Your task to perform on an android device: empty trash in the gmail app Image 0: 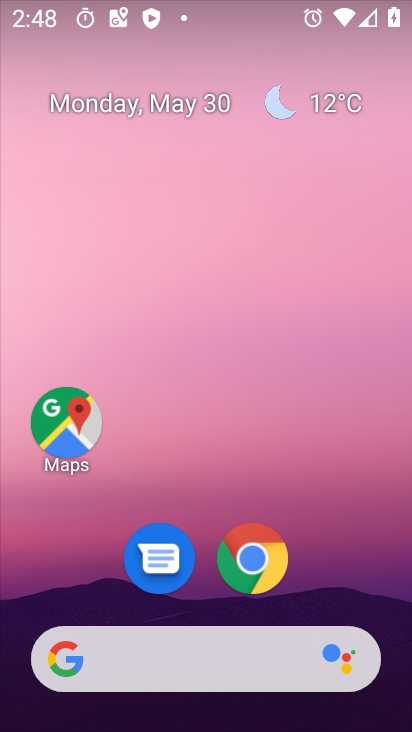
Step 0: drag from (160, 553) to (220, 102)
Your task to perform on an android device: empty trash in the gmail app Image 1: 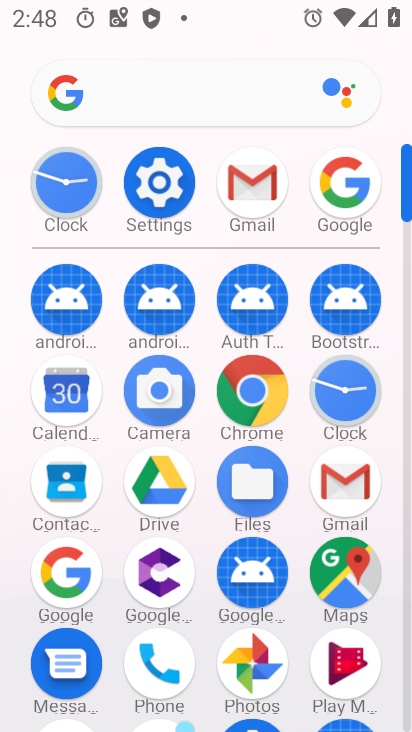
Step 1: click (261, 174)
Your task to perform on an android device: empty trash in the gmail app Image 2: 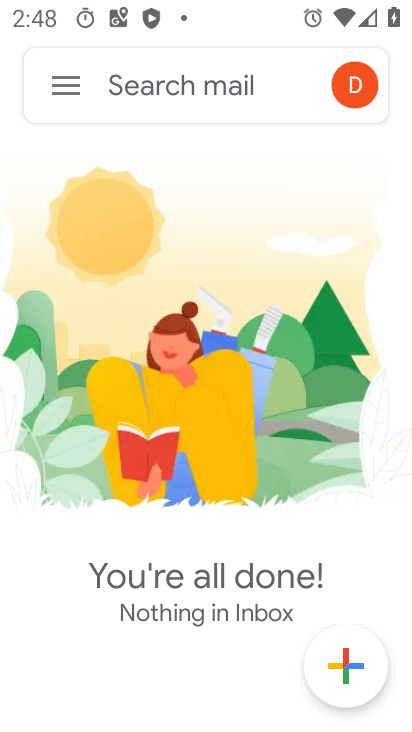
Step 2: click (60, 82)
Your task to perform on an android device: empty trash in the gmail app Image 3: 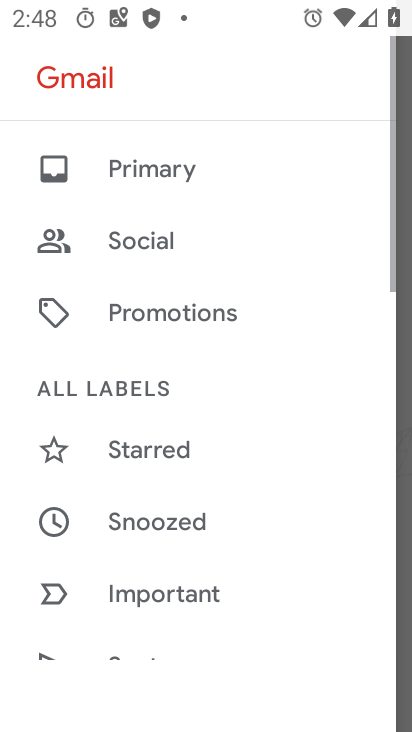
Step 3: drag from (114, 203) to (211, 139)
Your task to perform on an android device: empty trash in the gmail app Image 4: 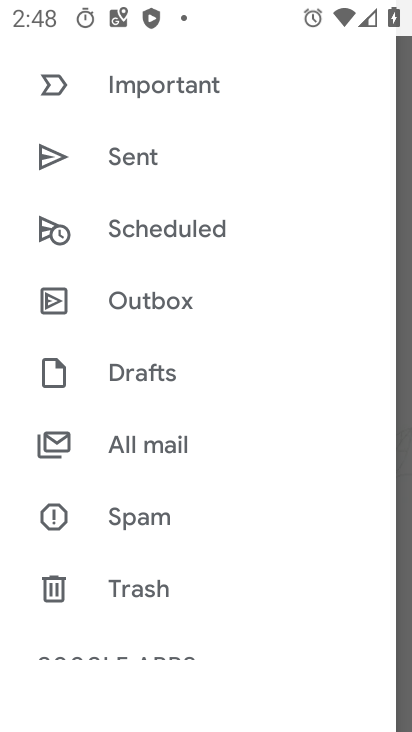
Step 4: click (130, 592)
Your task to perform on an android device: empty trash in the gmail app Image 5: 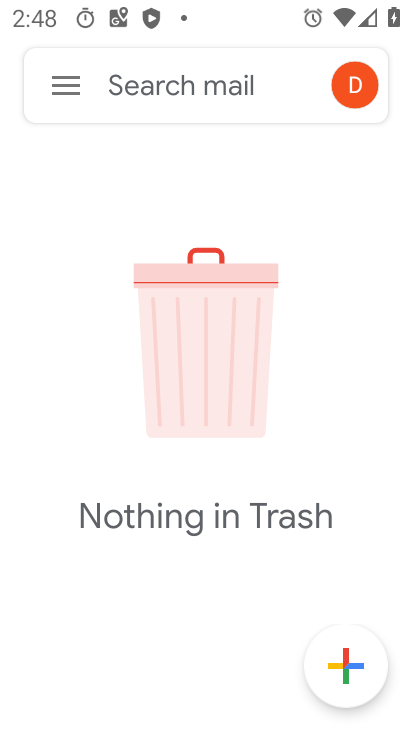
Step 5: task complete